Your task to perform on an android device: turn on javascript in the chrome app Image 0: 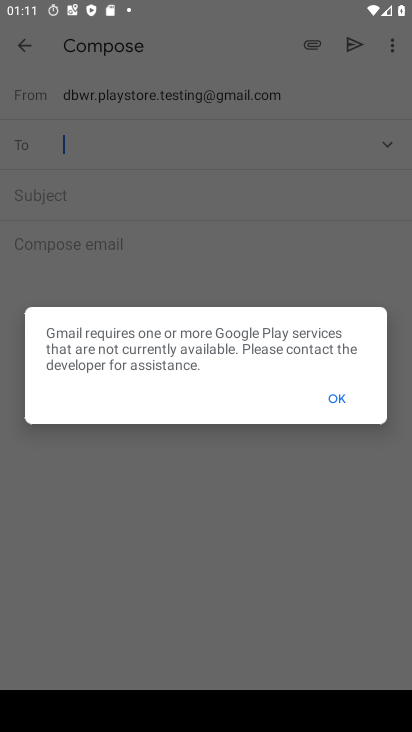
Step 0: press home button
Your task to perform on an android device: turn on javascript in the chrome app Image 1: 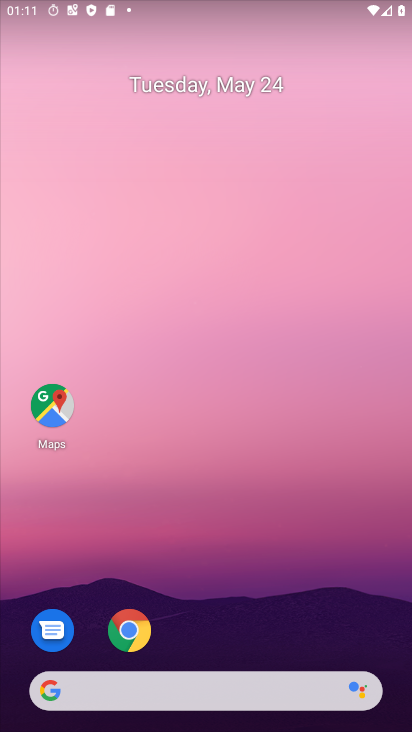
Step 1: click (129, 636)
Your task to perform on an android device: turn on javascript in the chrome app Image 2: 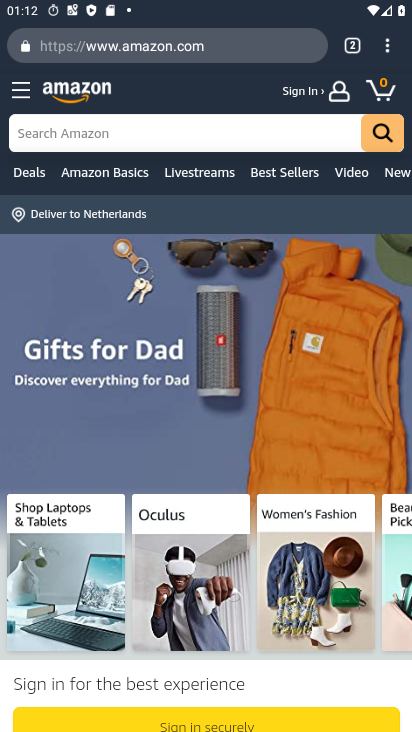
Step 2: click (387, 50)
Your task to perform on an android device: turn on javascript in the chrome app Image 3: 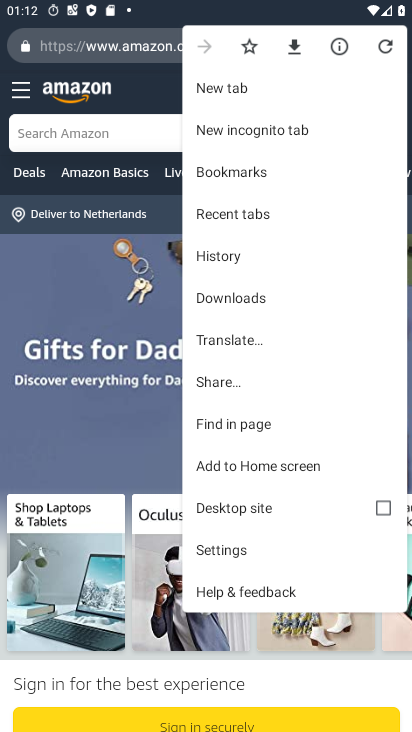
Step 3: click (222, 549)
Your task to perform on an android device: turn on javascript in the chrome app Image 4: 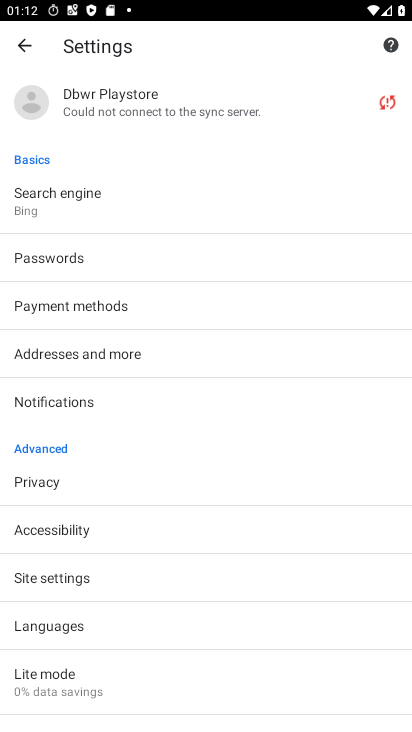
Step 4: click (61, 578)
Your task to perform on an android device: turn on javascript in the chrome app Image 5: 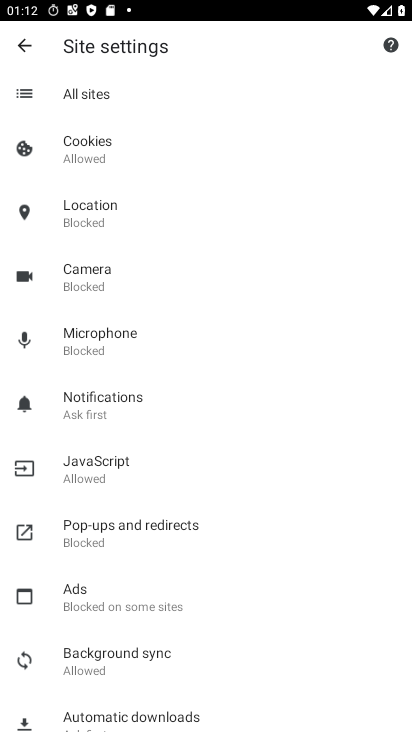
Step 5: click (86, 471)
Your task to perform on an android device: turn on javascript in the chrome app Image 6: 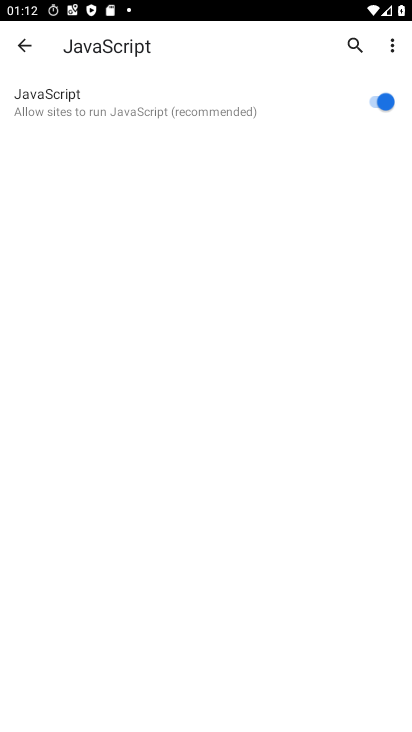
Step 6: task complete